Your task to perform on an android device: What's the weather? Image 0: 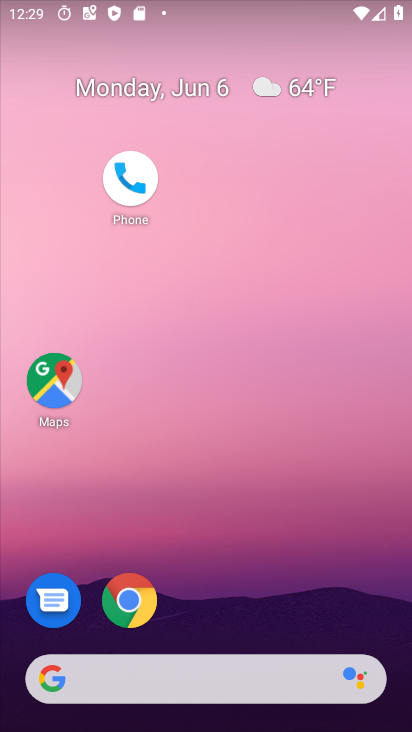
Step 0: drag from (24, 257) to (411, 438)
Your task to perform on an android device: What's the weather? Image 1: 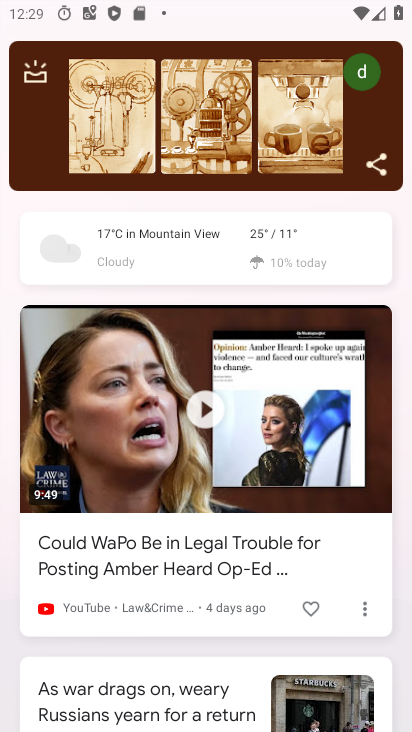
Step 1: drag from (172, 73) to (182, 485)
Your task to perform on an android device: What's the weather? Image 2: 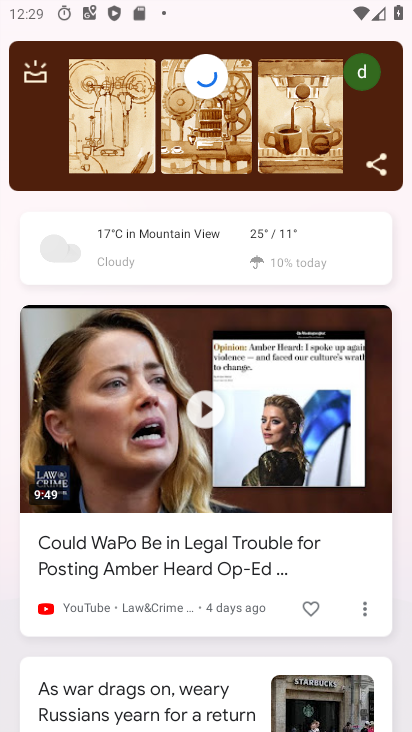
Step 2: click (189, 255)
Your task to perform on an android device: What's the weather? Image 3: 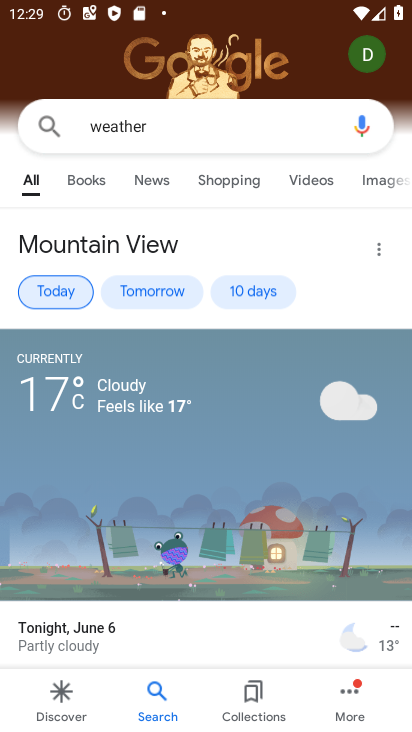
Step 3: click (126, 217)
Your task to perform on an android device: What's the weather? Image 4: 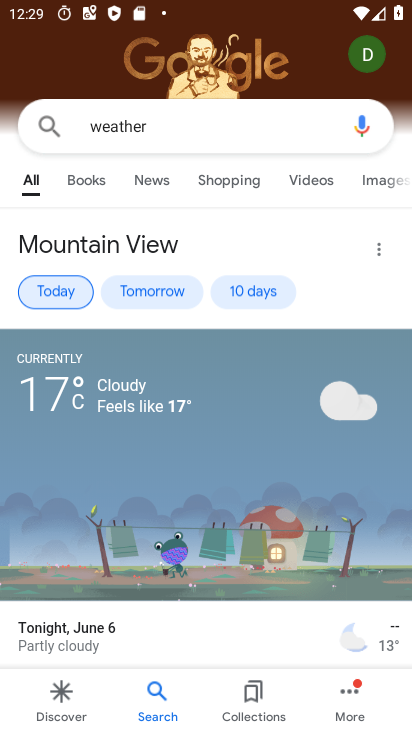
Step 4: task complete